Your task to perform on an android device: Open Google Chrome and open the bookmarks view Image 0: 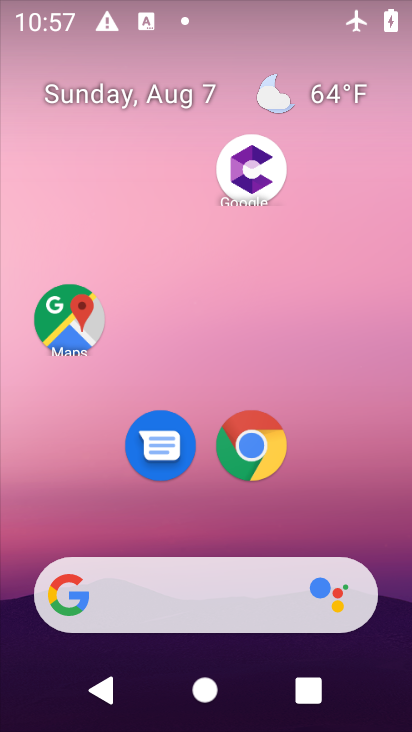
Step 0: press home button
Your task to perform on an android device: Open Google Chrome and open the bookmarks view Image 1: 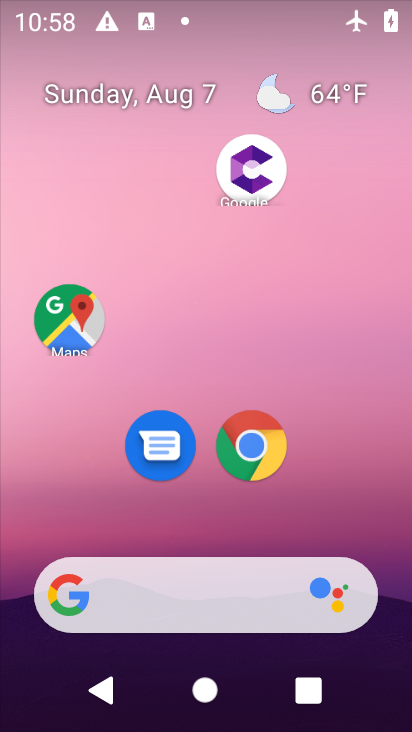
Step 1: drag from (209, 537) to (217, 22)
Your task to perform on an android device: Open Google Chrome and open the bookmarks view Image 2: 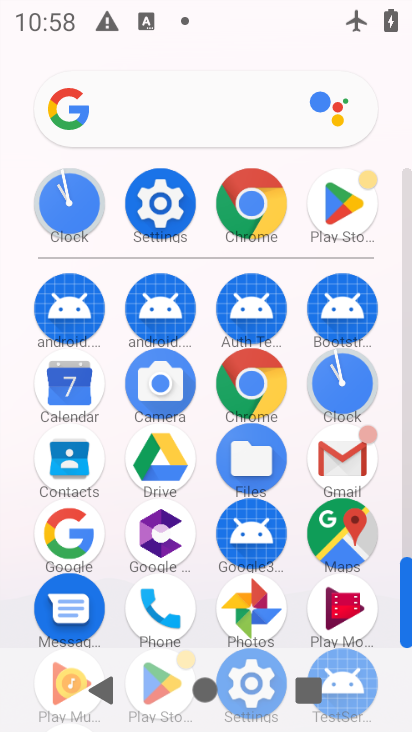
Step 2: click (250, 375)
Your task to perform on an android device: Open Google Chrome and open the bookmarks view Image 3: 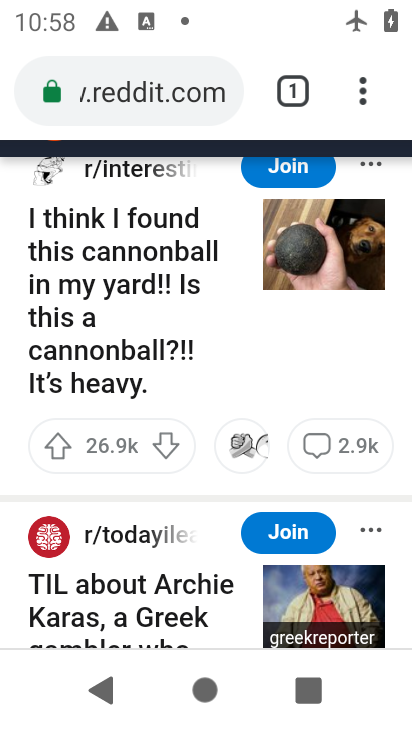
Step 3: click (359, 88)
Your task to perform on an android device: Open Google Chrome and open the bookmarks view Image 4: 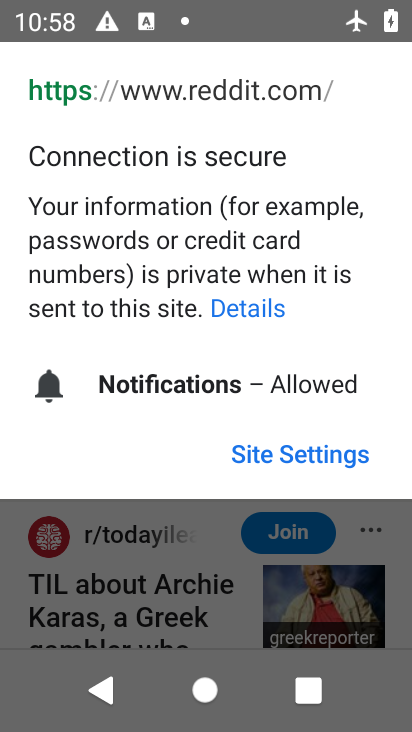
Step 4: click (220, 616)
Your task to perform on an android device: Open Google Chrome and open the bookmarks view Image 5: 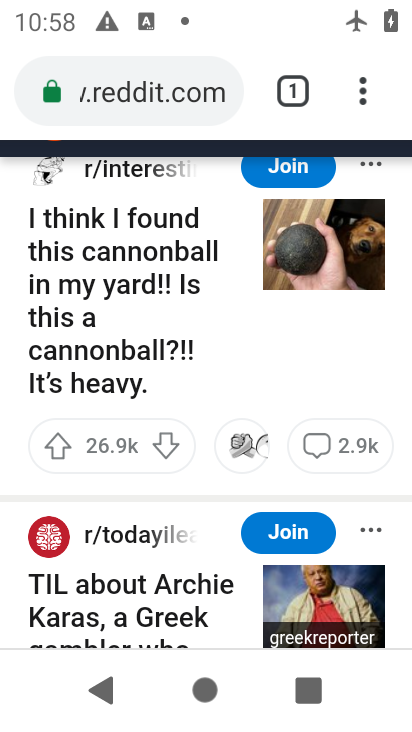
Step 5: click (363, 89)
Your task to perform on an android device: Open Google Chrome and open the bookmarks view Image 6: 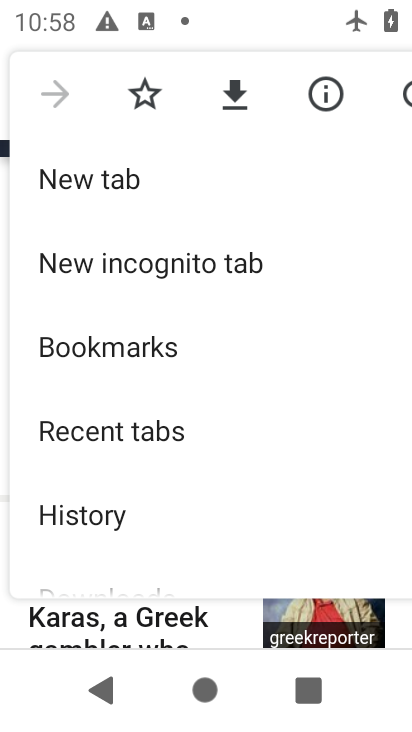
Step 6: click (187, 351)
Your task to perform on an android device: Open Google Chrome and open the bookmarks view Image 7: 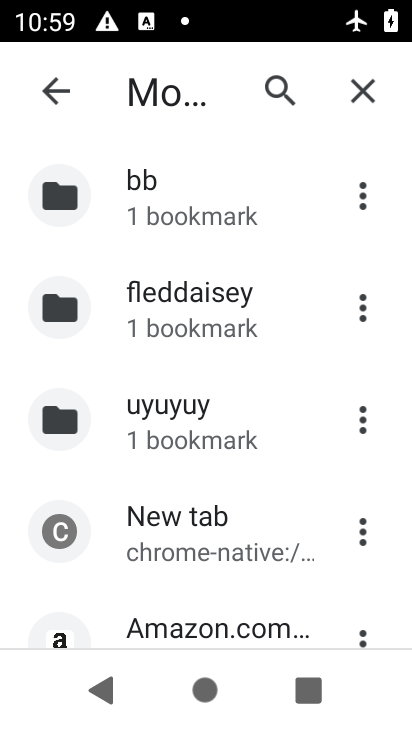
Step 7: click (183, 540)
Your task to perform on an android device: Open Google Chrome and open the bookmarks view Image 8: 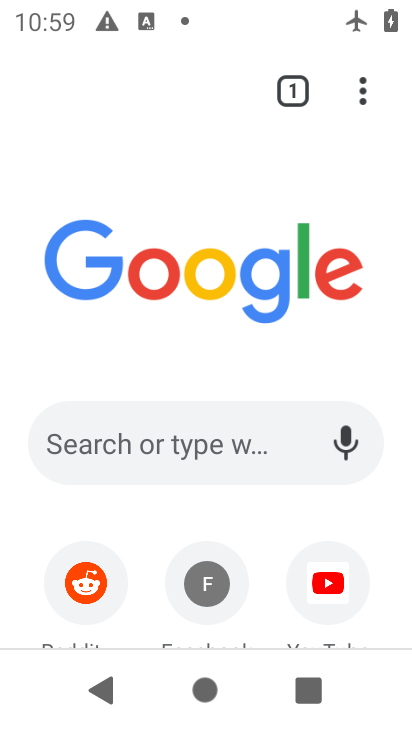
Step 8: task complete